Your task to perform on an android device: turn off location history Image 0: 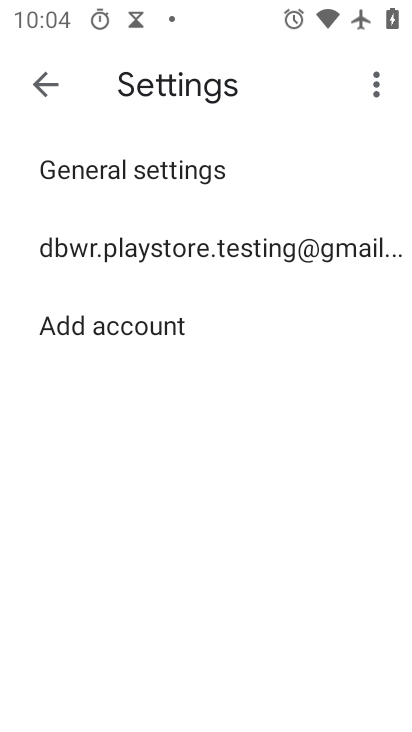
Step 0: press home button
Your task to perform on an android device: turn off location history Image 1: 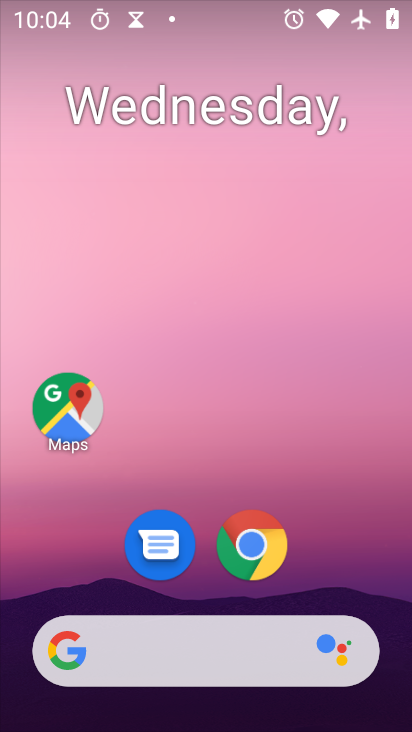
Step 1: click (70, 424)
Your task to perform on an android device: turn off location history Image 2: 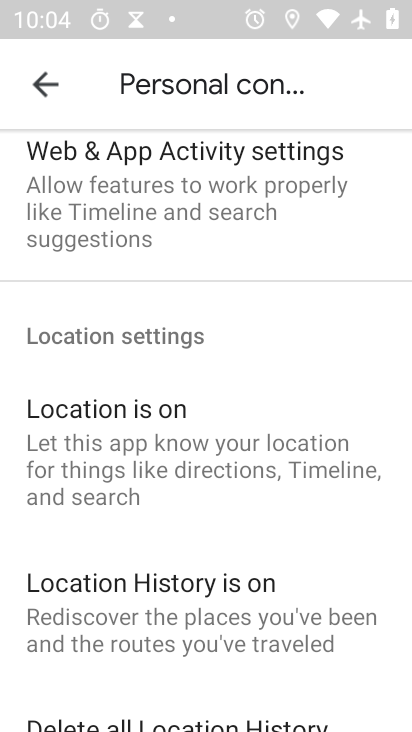
Step 2: click (155, 605)
Your task to perform on an android device: turn off location history Image 3: 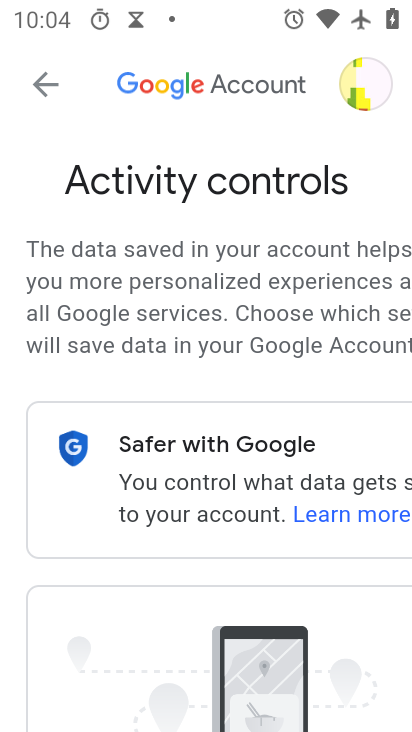
Step 3: task complete